Your task to perform on an android device: Open my contact list Image 0: 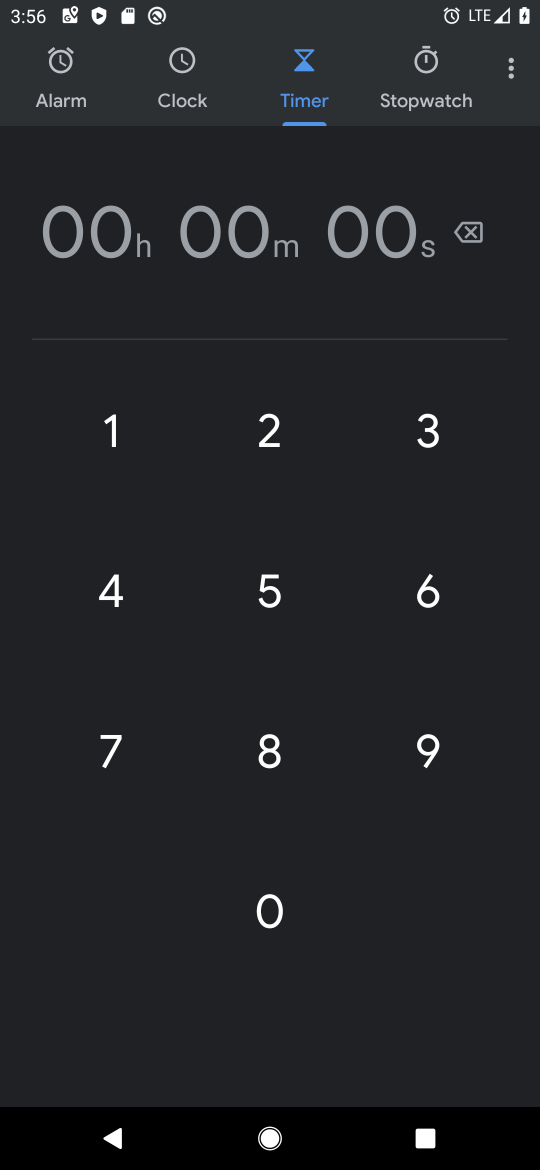
Step 0: press home button
Your task to perform on an android device: Open my contact list Image 1: 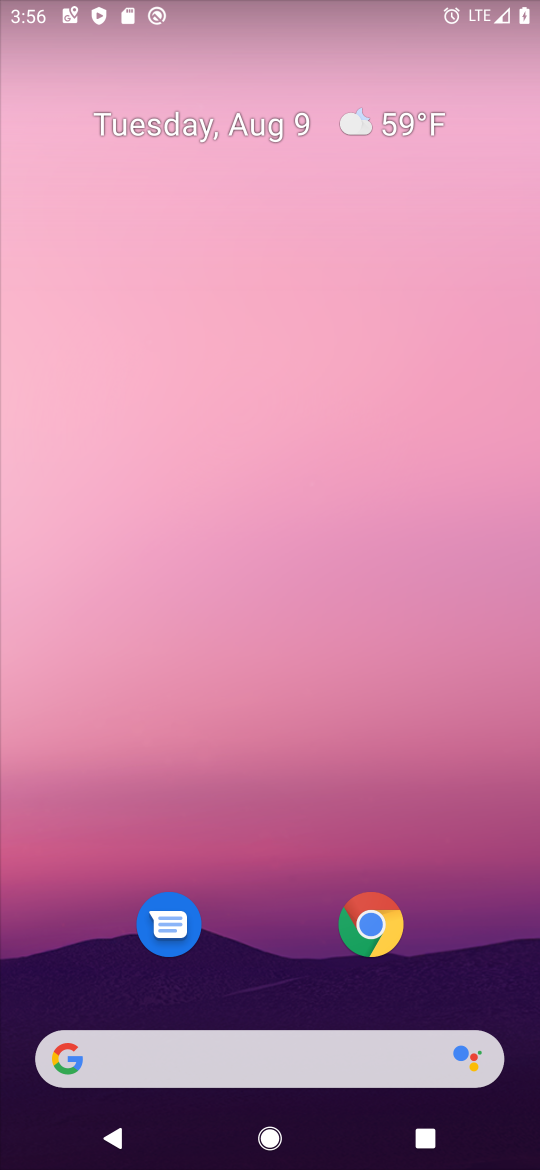
Step 1: drag from (266, 969) to (261, 9)
Your task to perform on an android device: Open my contact list Image 2: 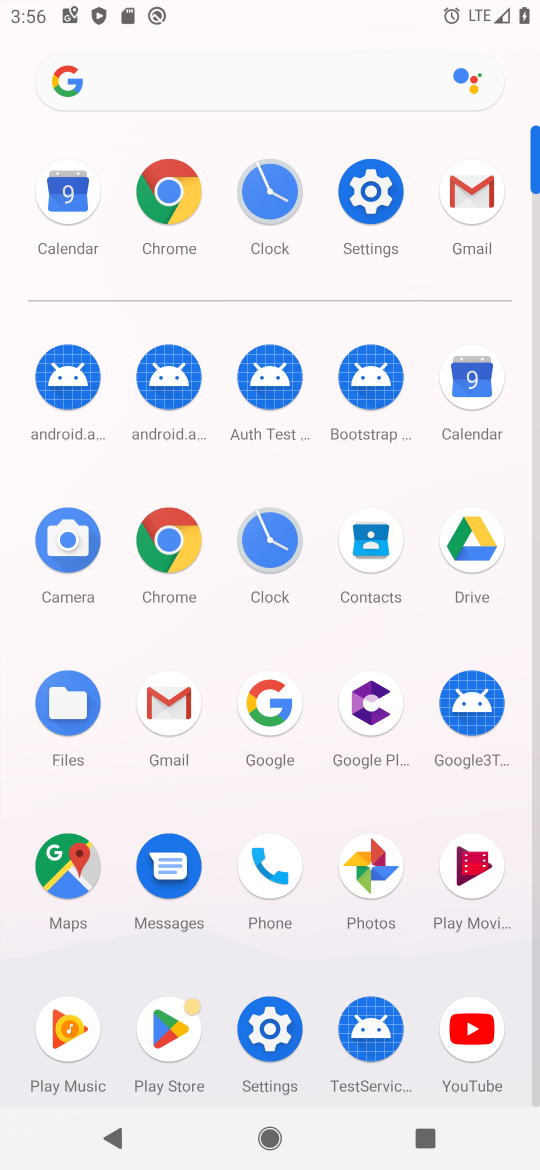
Step 2: click (372, 550)
Your task to perform on an android device: Open my contact list Image 3: 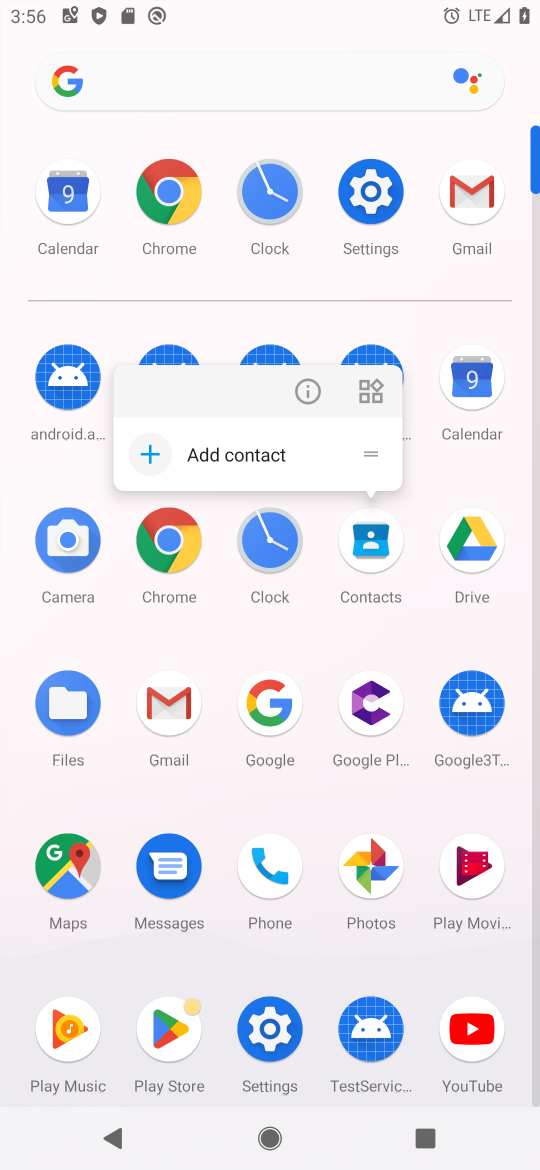
Step 3: click (372, 546)
Your task to perform on an android device: Open my contact list Image 4: 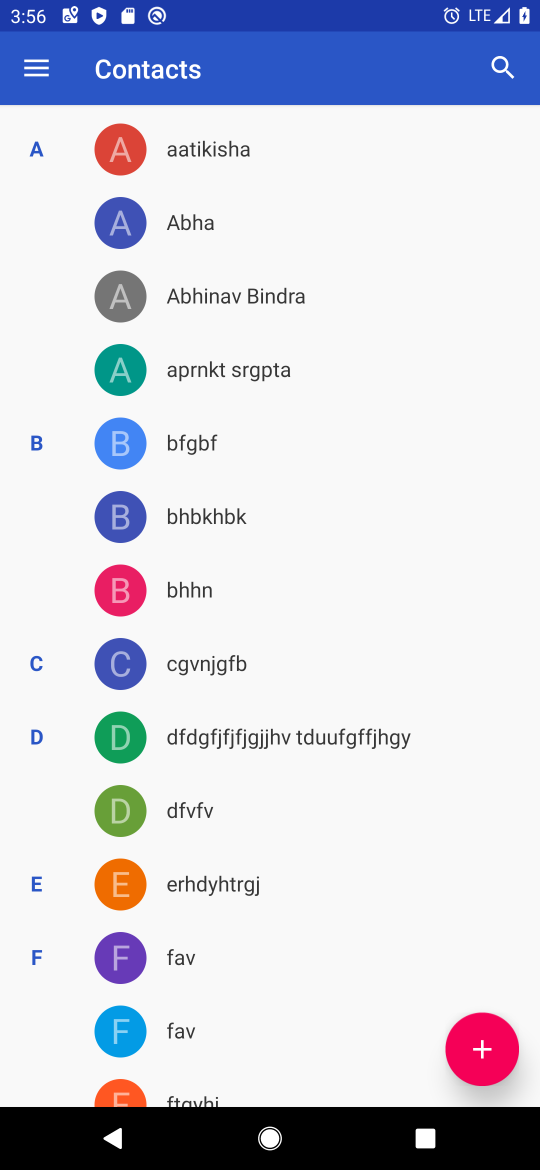
Step 4: task complete